Your task to perform on an android device: Open Maps and search for coffee Image 0: 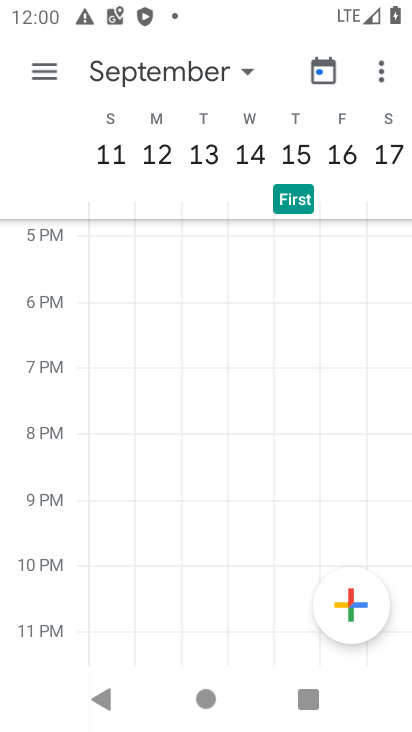
Step 0: press home button
Your task to perform on an android device: Open Maps and search for coffee Image 1: 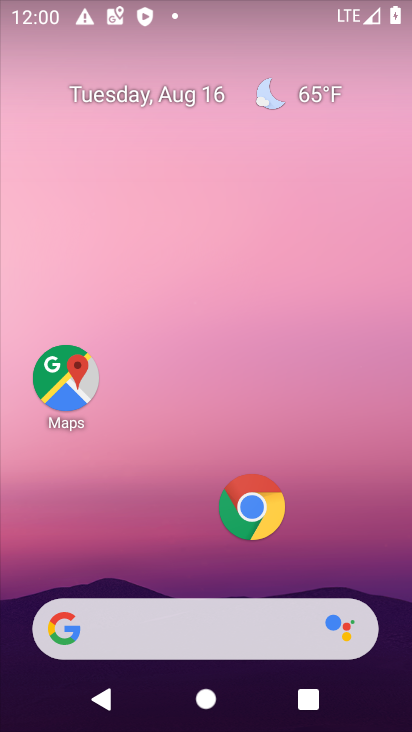
Step 1: click (63, 385)
Your task to perform on an android device: Open Maps and search for coffee Image 2: 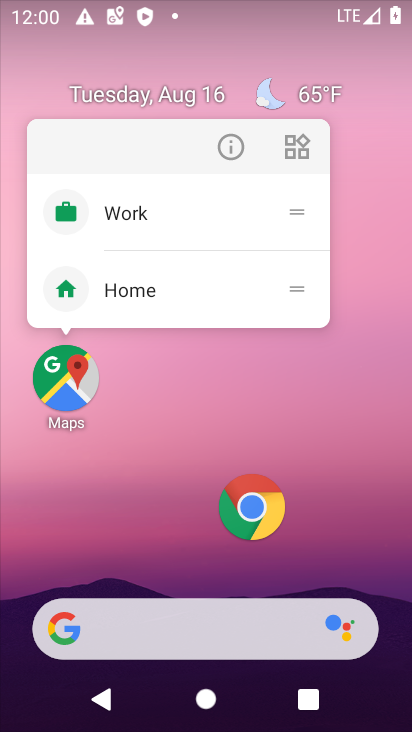
Step 2: click (63, 387)
Your task to perform on an android device: Open Maps and search for coffee Image 3: 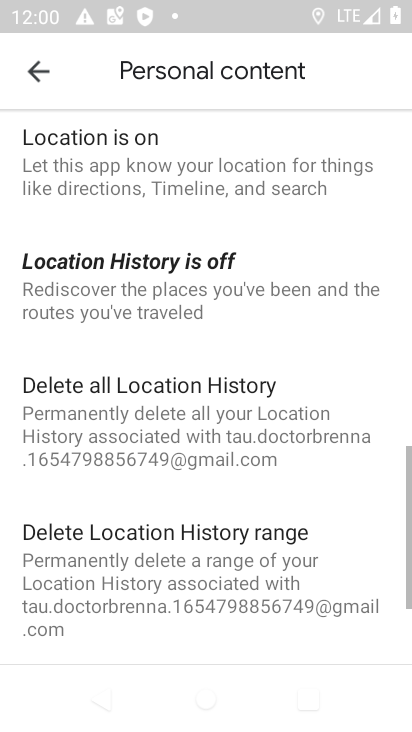
Step 3: click (33, 67)
Your task to perform on an android device: Open Maps and search for coffee Image 4: 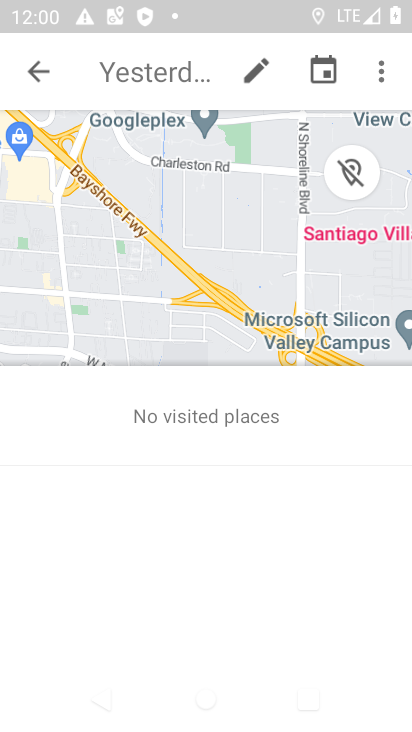
Step 4: click (34, 69)
Your task to perform on an android device: Open Maps and search for coffee Image 5: 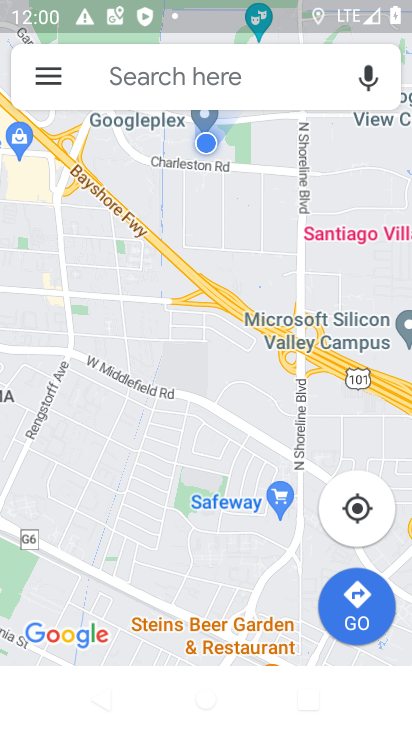
Step 5: click (186, 80)
Your task to perform on an android device: Open Maps and search for coffee Image 6: 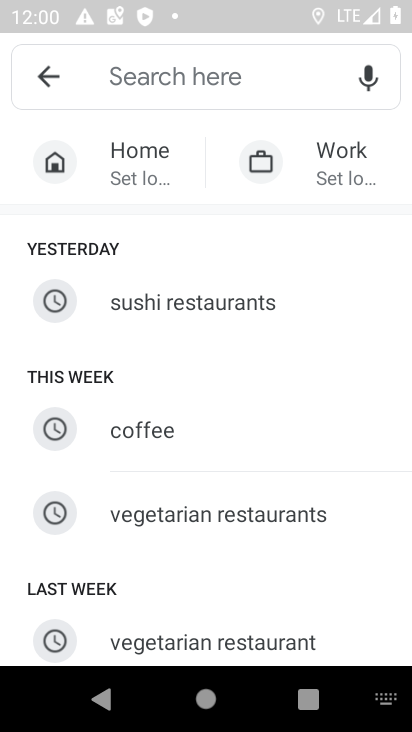
Step 6: click (140, 426)
Your task to perform on an android device: Open Maps and search for coffee Image 7: 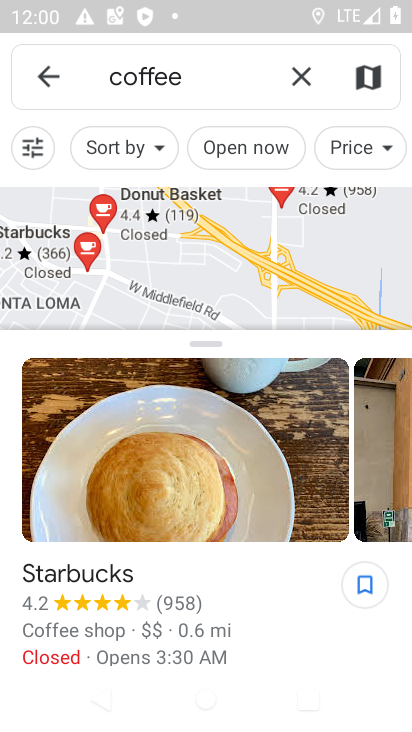
Step 7: task complete